Your task to perform on an android device: Turn on the flashlight Image 0: 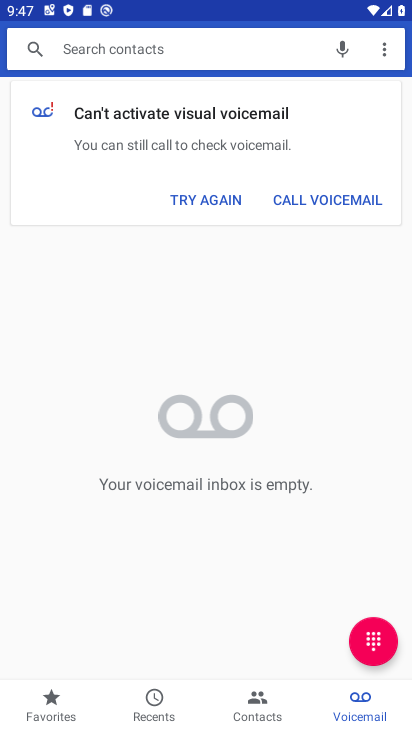
Step 0: press home button
Your task to perform on an android device: Turn on the flashlight Image 1: 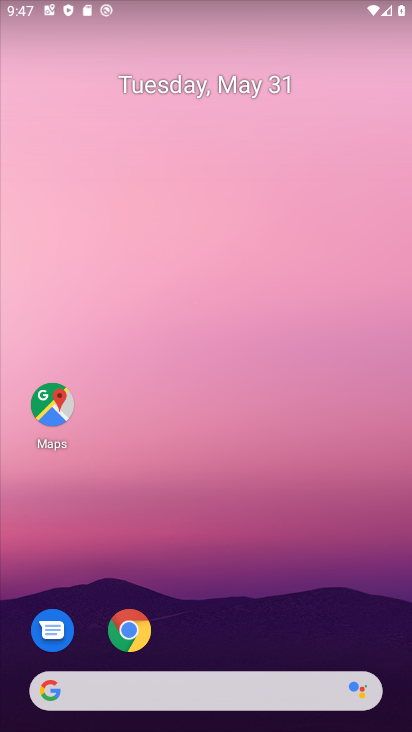
Step 1: task complete